Your task to perform on an android device: open sync settings in chrome Image 0: 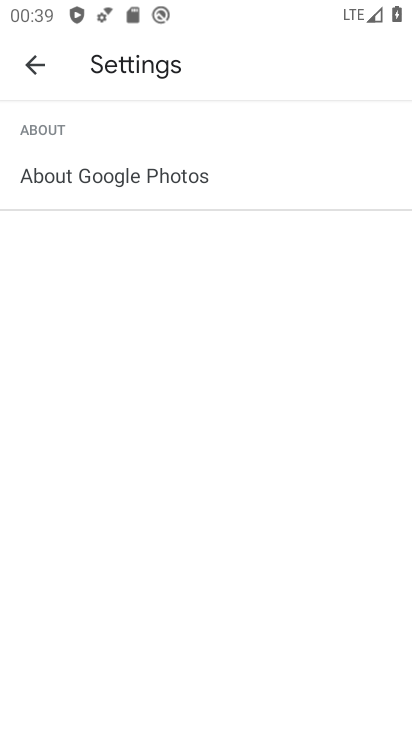
Step 0: press home button
Your task to perform on an android device: open sync settings in chrome Image 1: 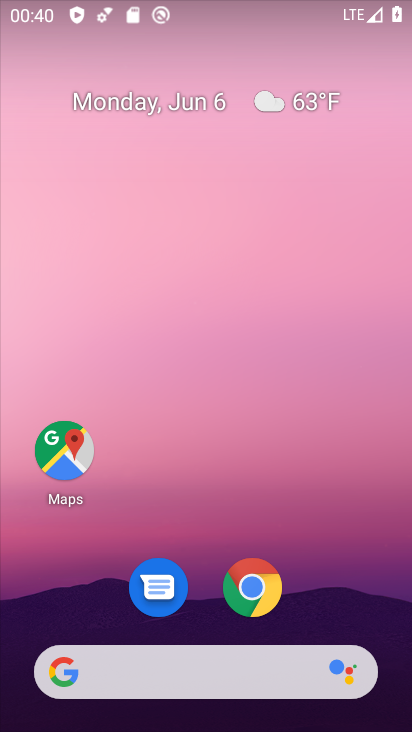
Step 1: click (268, 597)
Your task to perform on an android device: open sync settings in chrome Image 2: 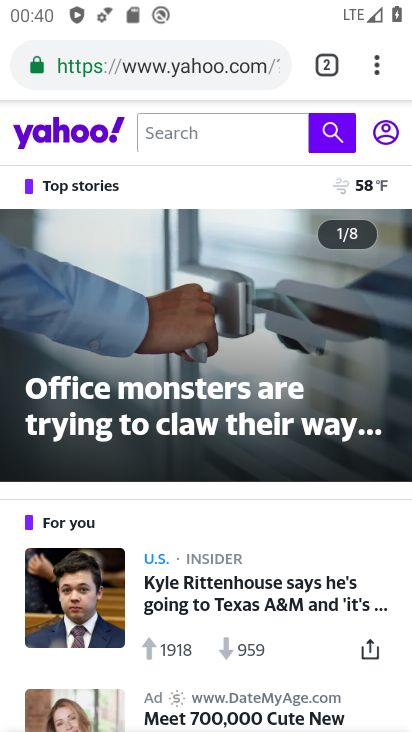
Step 2: click (380, 56)
Your task to perform on an android device: open sync settings in chrome Image 3: 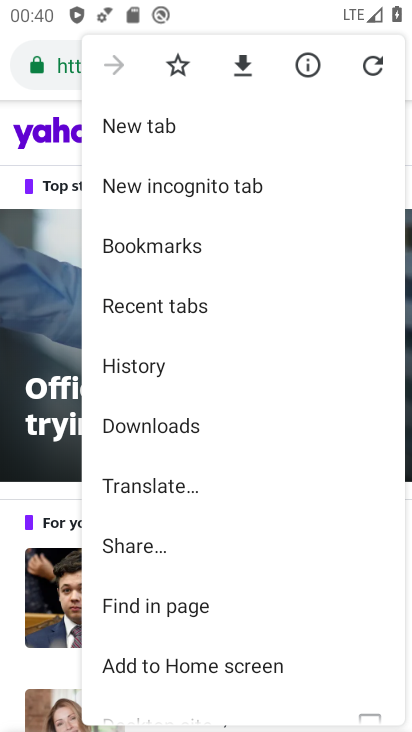
Step 3: drag from (235, 684) to (178, 149)
Your task to perform on an android device: open sync settings in chrome Image 4: 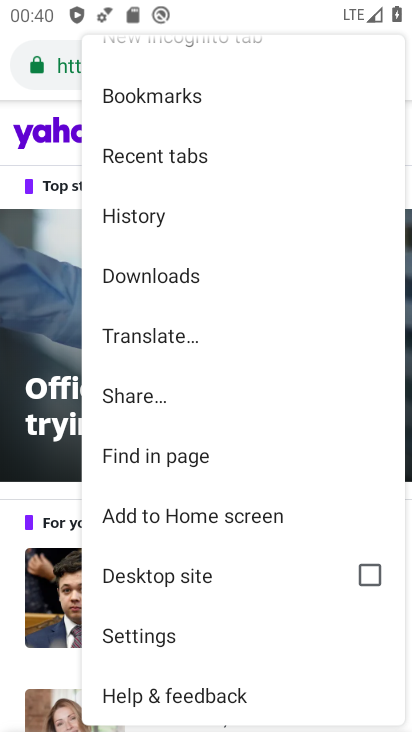
Step 4: click (192, 642)
Your task to perform on an android device: open sync settings in chrome Image 5: 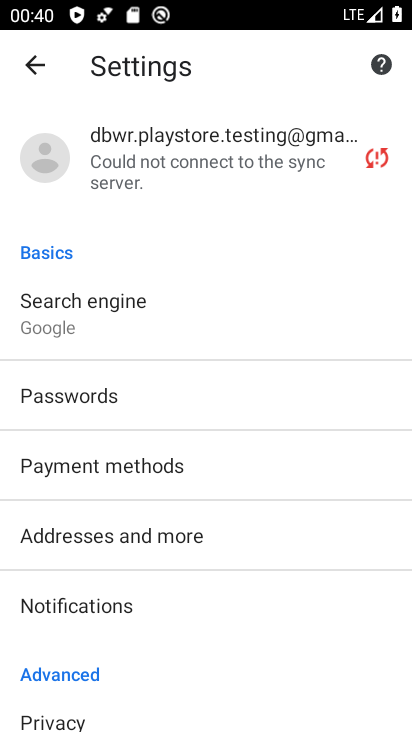
Step 5: click (229, 137)
Your task to perform on an android device: open sync settings in chrome Image 6: 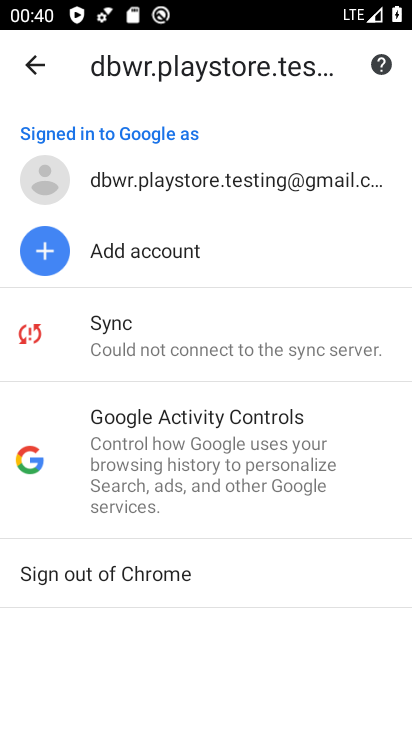
Step 6: click (251, 332)
Your task to perform on an android device: open sync settings in chrome Image 7: 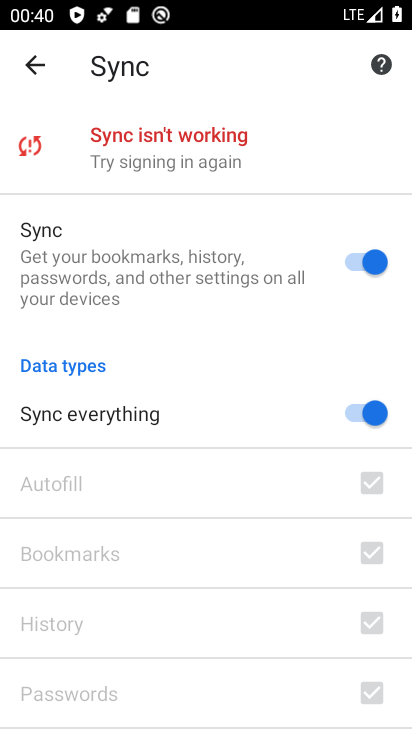
Step 7: task complete